Your task to perform on an android device: Do I have any events tomorrow? Image 0: 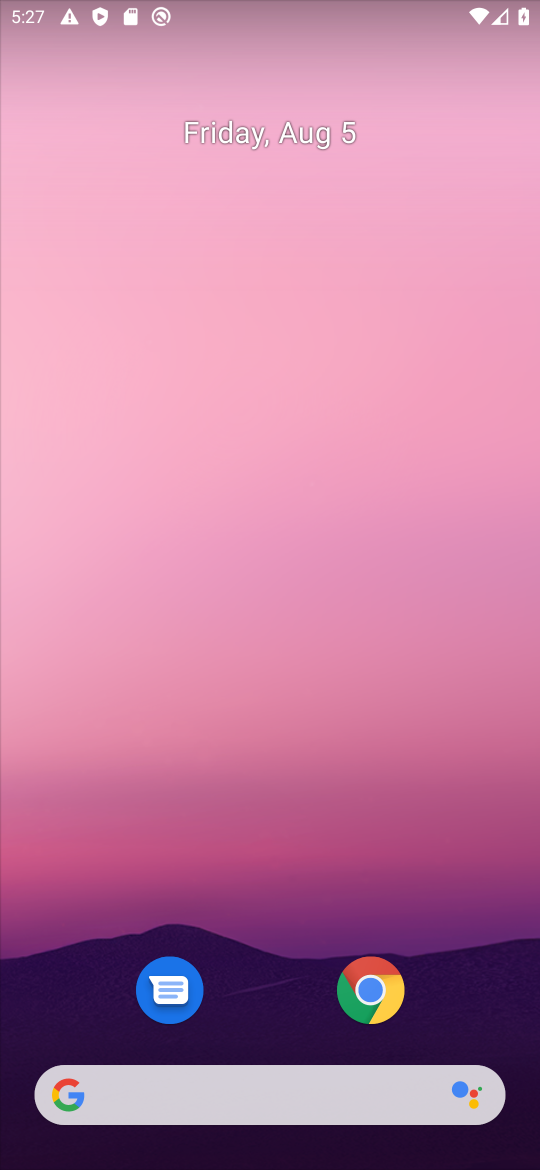
Step 0: drag from (284, 962) to (227, 553)
Your task to perform on an android device: Do I have any events tomorrow? Image 1: 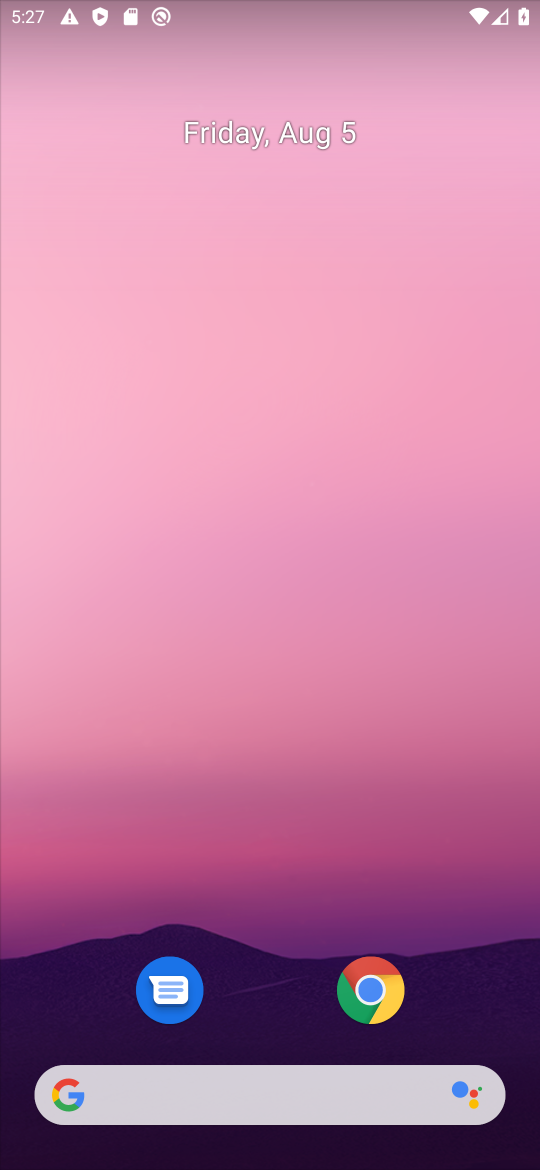
Step 1: drag from (259, 1045) to (218, 440)
Your task to perform on an android device: Do I have any events tomorrow? Image 2: 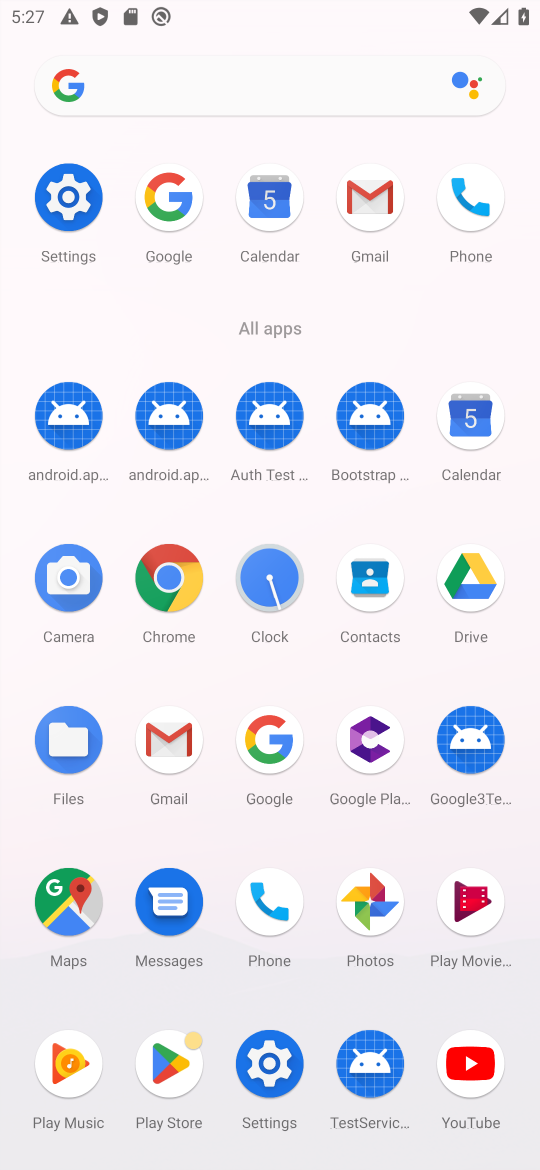
Step 2: click (244, 204)
Your task to perform on an android device: Do I have any events tomorrow? Image 3: 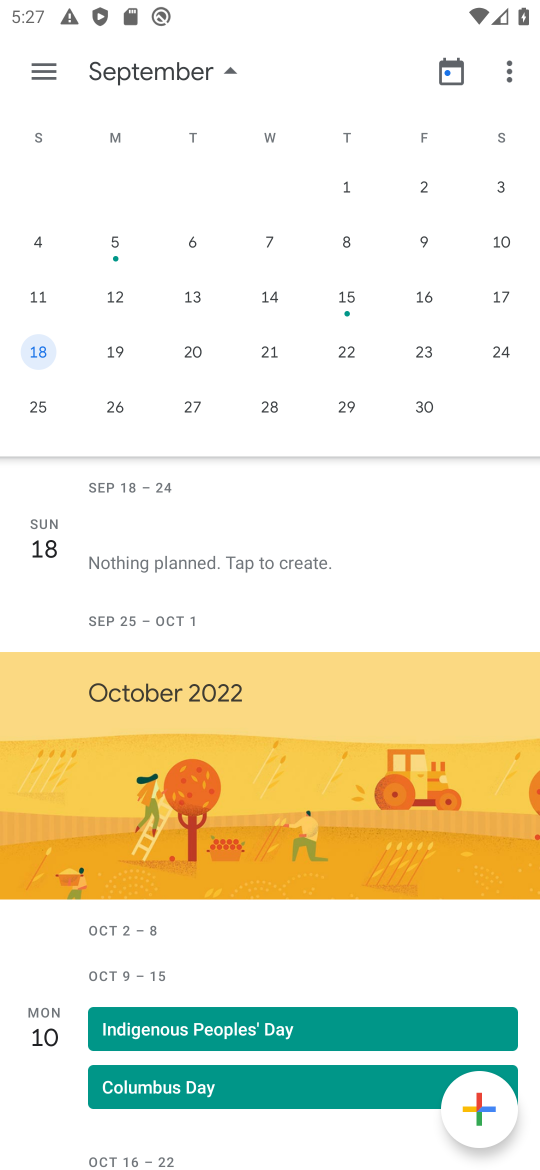
Step 3: drag from (29, 350) to (517, 418)
Your task to perform on an android device: Do I have any events tomorrow? Image 4: 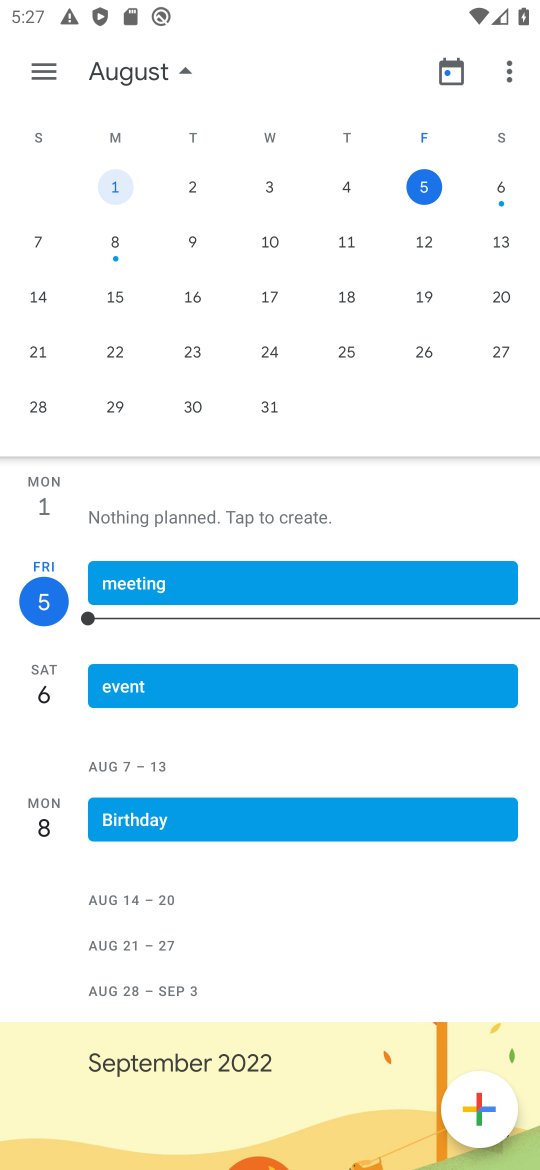
Step 4: click (497, 189)
Your task to perform on an android device: Do I have any events tomorrow? Image 5: 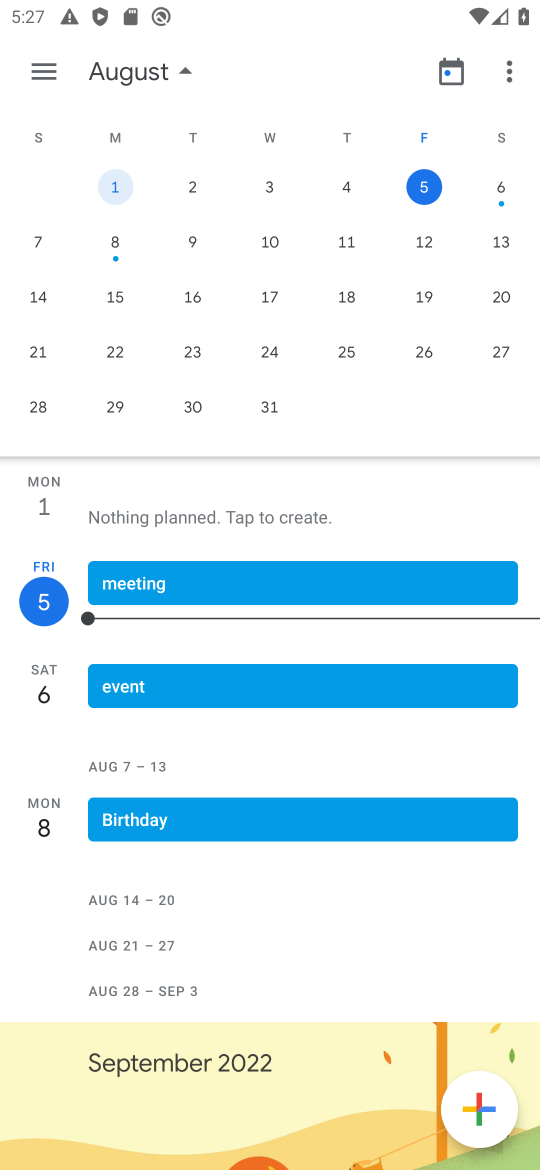
Step 5: click (502, 183)
Your task to perform on an android device: Do I have any events tomorrow? Image 6: 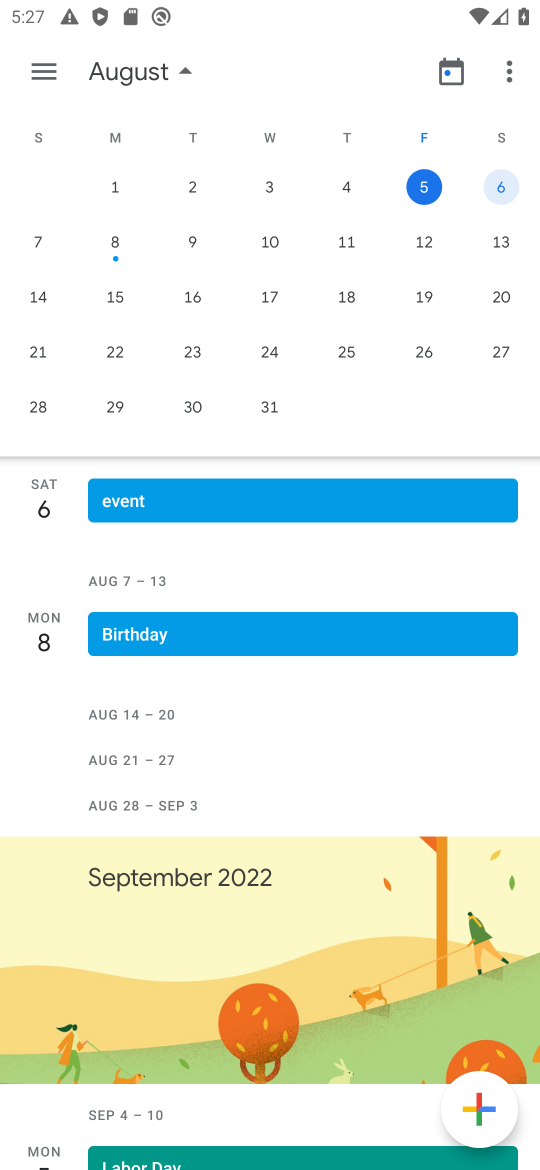
Step 6: task complete